Your task to perform on an android device: Open battery settings Image 0: 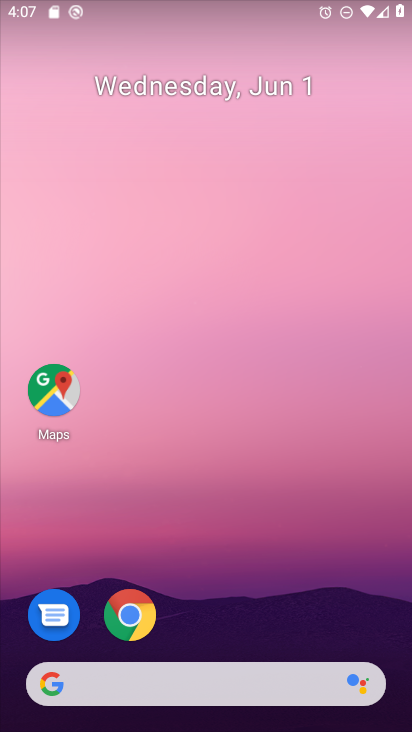
Step 0: drag from (226, 637) to (220, 59)
Your task to perform on an android device: Open battery settings Image 1: 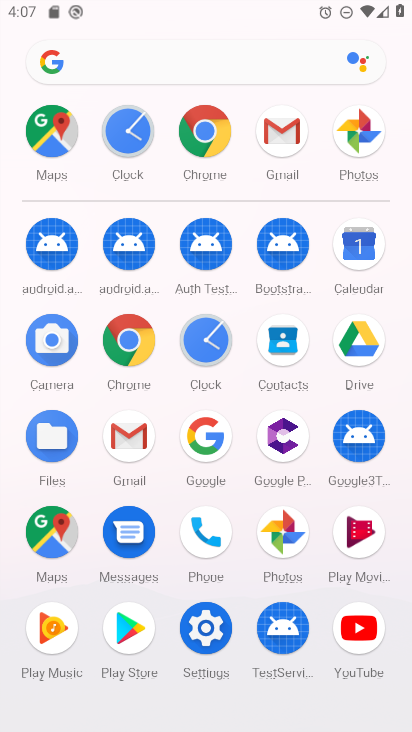
Step 1: click (206, 622)
Your task to perform on an android device: Open battery settings Image 2: 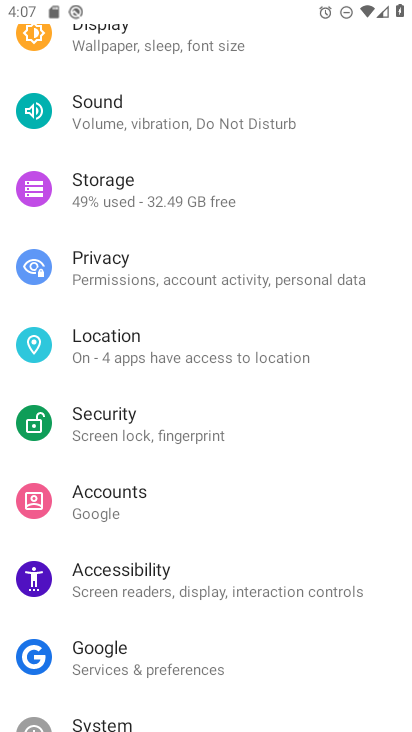
Step 2: drag from (157, 205) to (174, 652)
Your task to perform on an android device: Open battery settings Image 3: 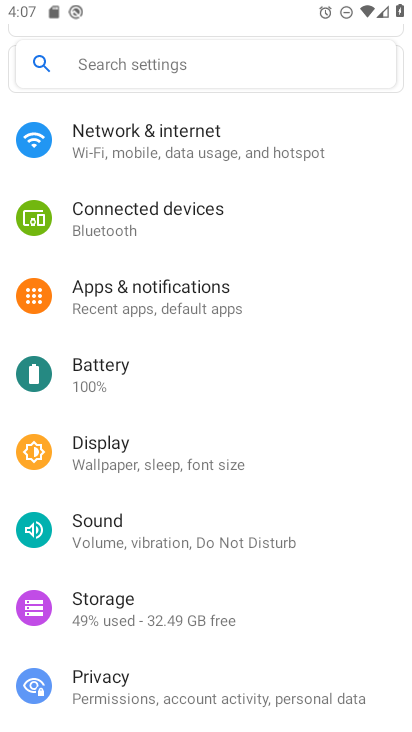
Step 3: click (147, 372)
Your task to perform on an android device: Open battery settings Image 4: 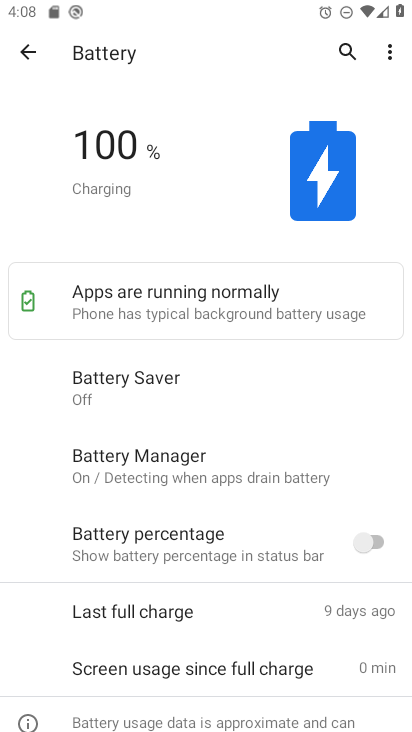
Step 4: task complete